Your task to perform on an android device: Go to Reddit.com Image 0: 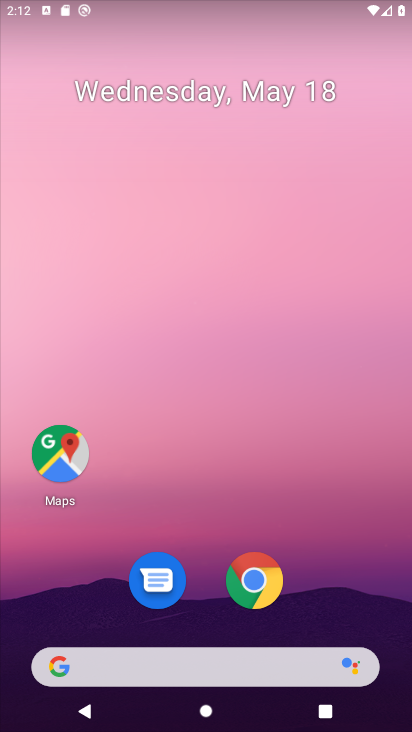
Step 0: drag from (196, 627) to (221, 230)
Your task to perform on an android device: Go to Reddit.com Image 1: 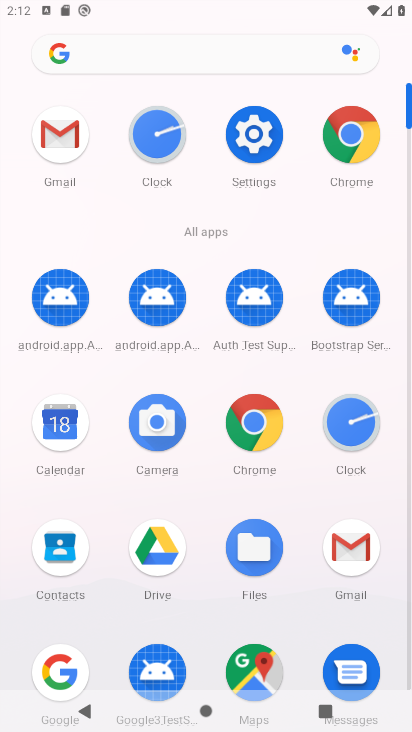
Step 1: click (344, 132)
Your task to perform on an android device: Go to Reddit.com Image 2: 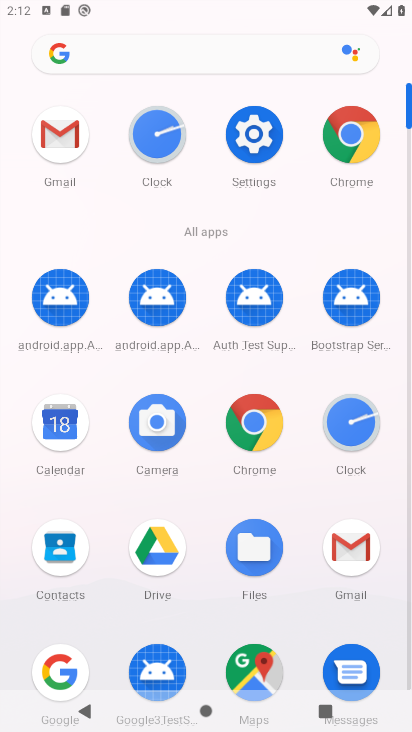
Step 2: click (344, 132)
Your task to perform on an android device: Go to Reddit.com Image 3: 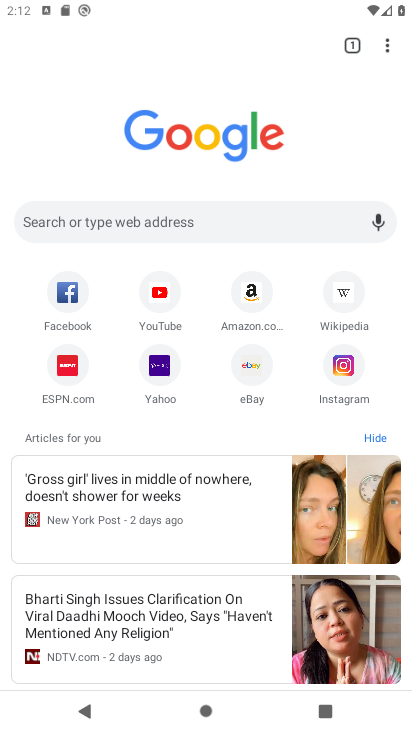
Step 3: click (132, 209)
Your task to perform on an android device: Go to Reddit.com Image 4: 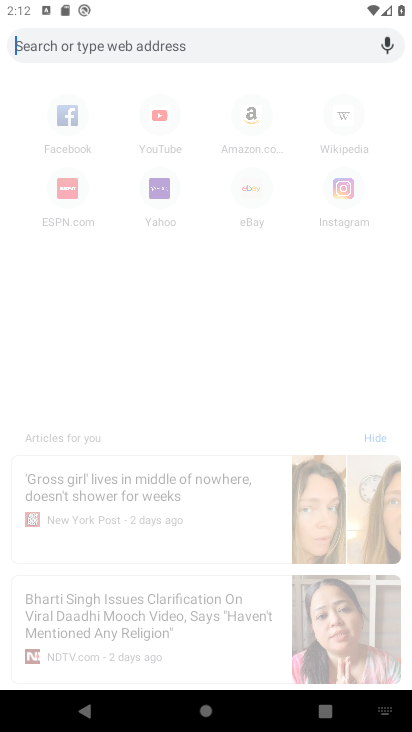
Step 4: type "reddit.com"
Your task to perform on an android device: Go to Reddit.com Image 5: 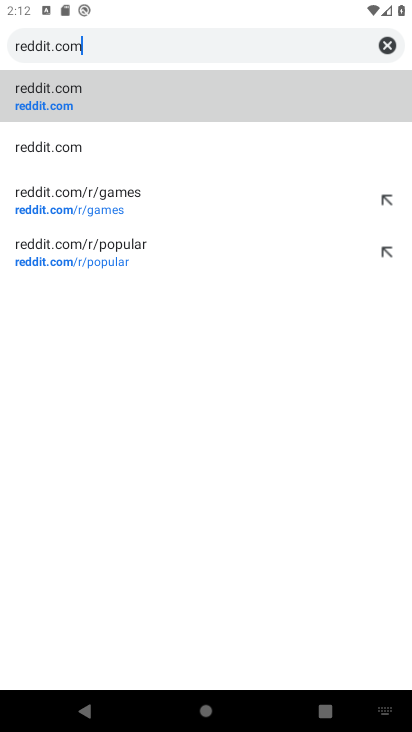
Step 5: click (56, 107)
Your task to perform on an android device: Go to Reddit.com Image 6: 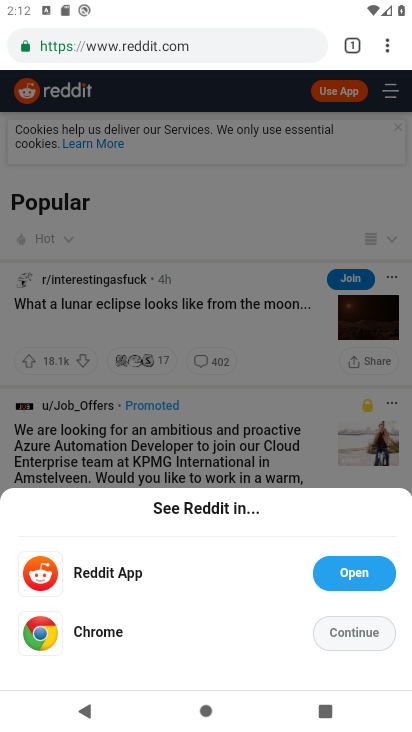
Step 6: task complete